Your task to perform on an android device: What's the weather? Image 0: 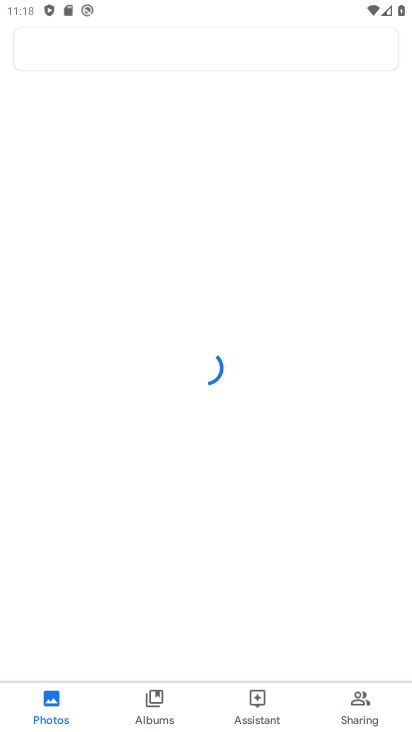
Step 0: press home button
Your task to perform on an android device: What's the weather? Image 1: 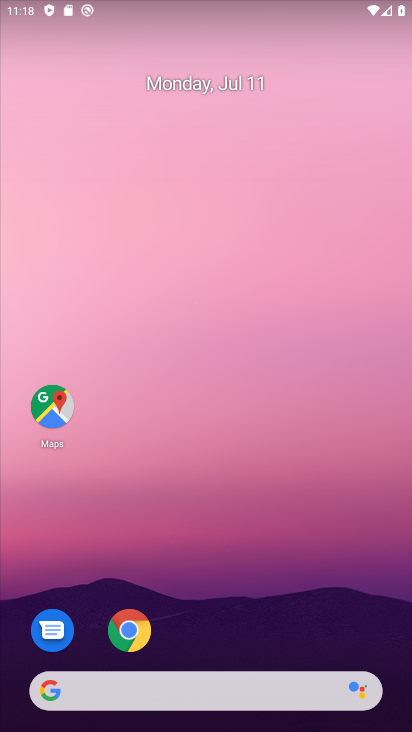
Step 1: drag from (215, 644) to (269, 90)
Your task to perform on an android device: What's the weather? Image 2: 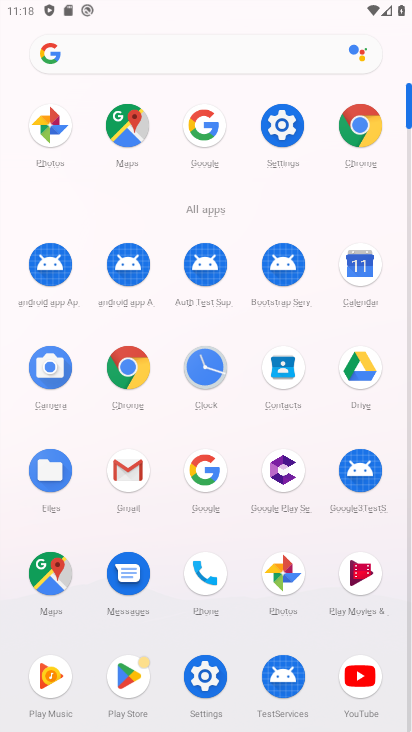
Step 2: click (204, 472)
Your task to perform on an android device: What's the weather? Image 3: 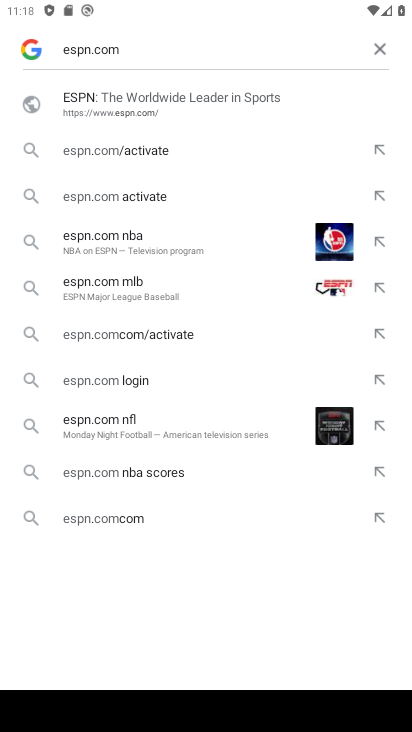
Step 3: click (380, 47)
Your task to perform on an android device: What's the weather? Image 4: 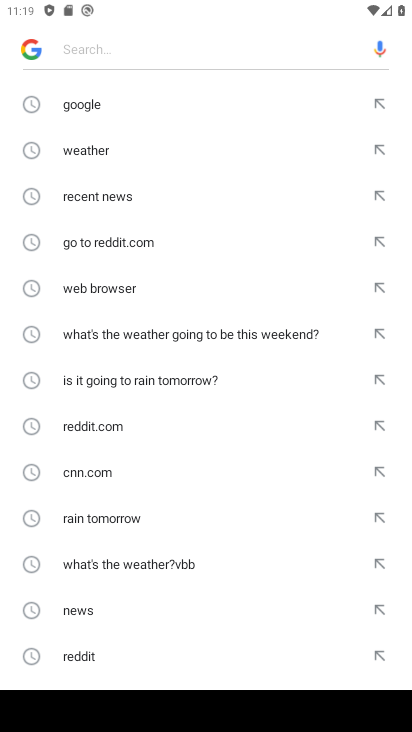
Step 4: click (82, 150)
Your task to perform on an android device: What's the weather? Image 5: 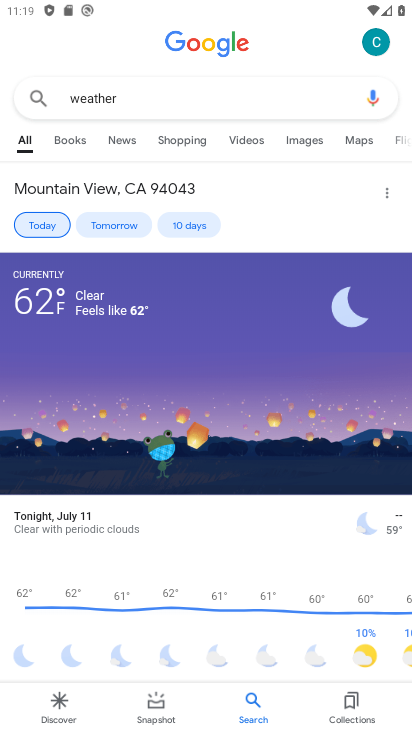
Step 5: task complete